Your task to perform on an android device: manage bookmarks in the chrome app Image 0: 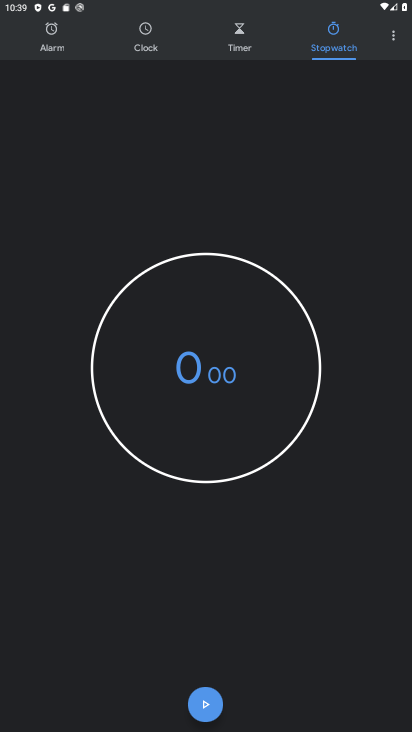
Step 0: press home button
Your task to perform on an android device: manage bookmarks in the chrome app Image 1: 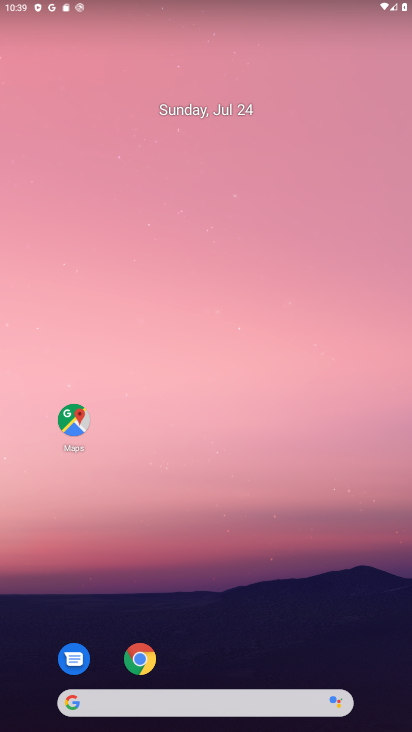
Step 1: click (153, 656)
Your task to perform on an android device: manage bookmarks in the chrome app Image 2: 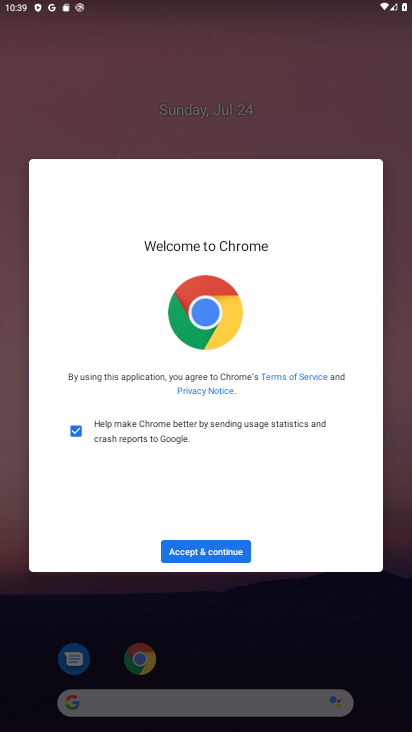
Step 2: click (223, 555)
Your task to perform on an android device: manage bookmarks in the chrome app Image 3: 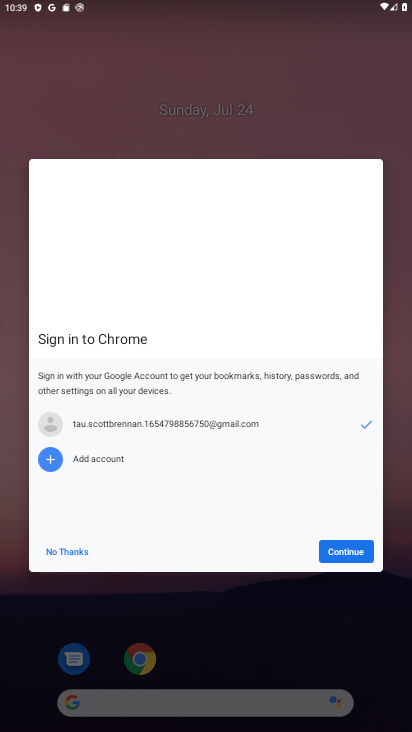
Step 3: click (346, 553)
Your task to perform on an android device: manage bookmarks in the chrome app Image 4: 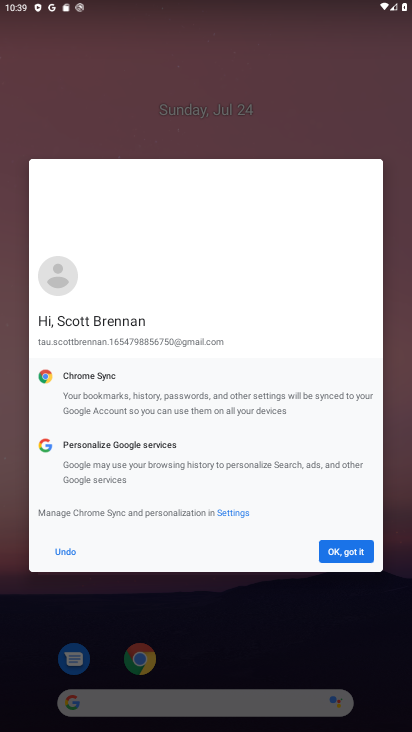
Step 4: click (337, 550)
Your task to perform on an android device: manage bookmarks in the chrome app Image 5: 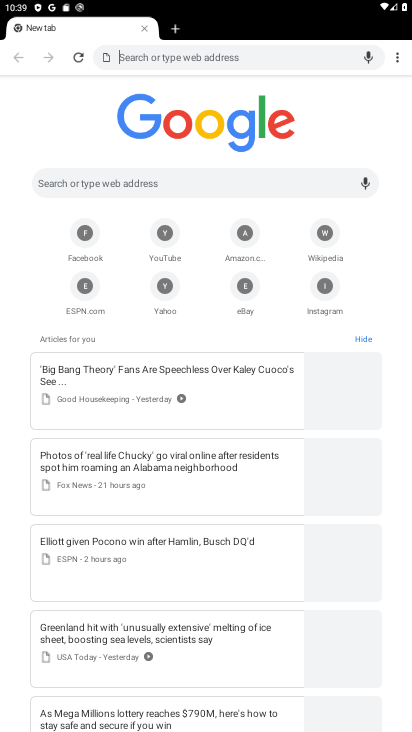
Step 5: click (398, 56)
Your task to perform on an android device: manage bookmarks in the chrome app Image 6: 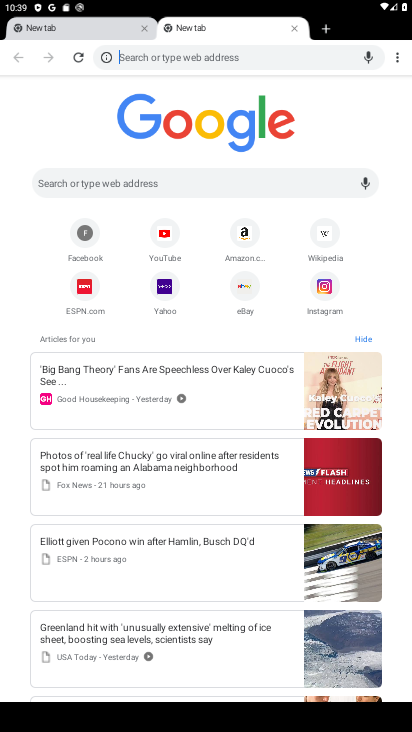
Step 6: click (409, 48)
Your task to perform on an android device: manage bookmarks in the chrome app Image 7: 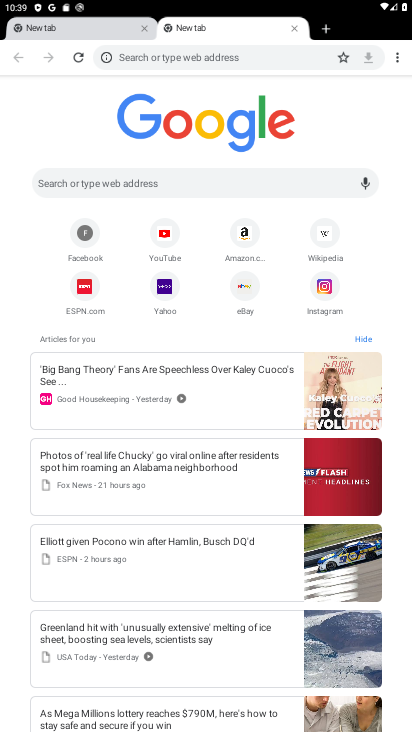
Step 7: click (402, 50)
Your task to perform on an android device: manage bookmarks in the chrome app Image 8: 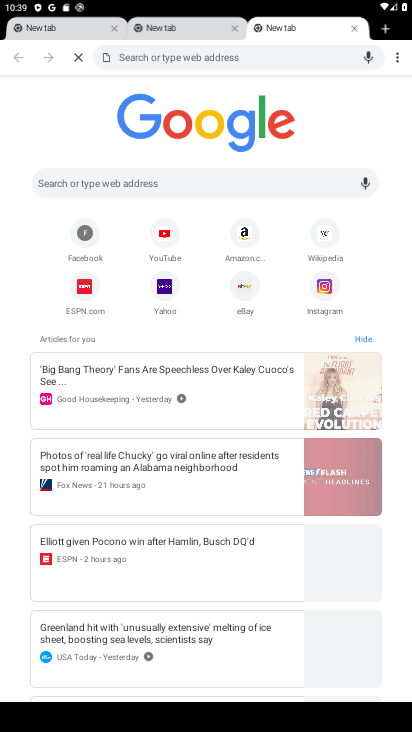
Step 8: click (402, 50)
Your task to perform on an android device: manage bookmarks in the chrome app Image 9: 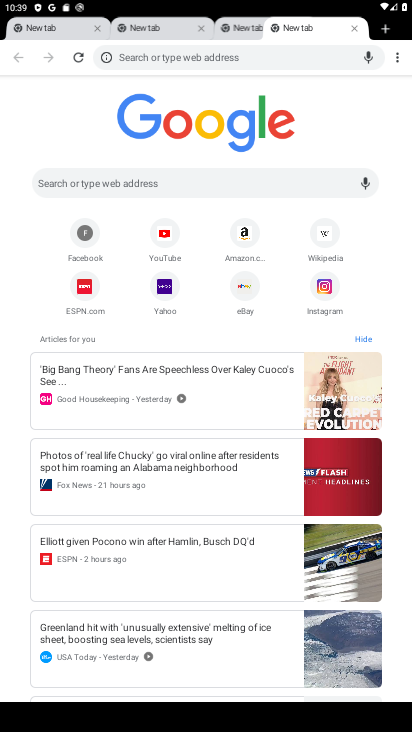
Step 9: click (402, 50)
Your task to perform on an android device: manage bookmarks in the chrome app Image 10: 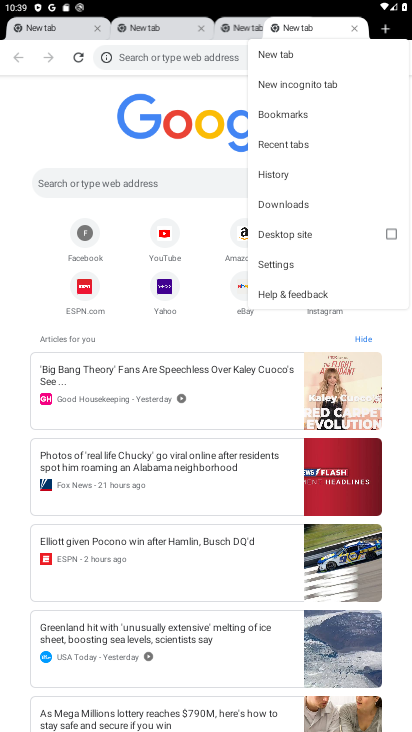
Step 10: click (276, 111)
Your task to perform on an android device: manage bookmarks in the chrome app Image 11: 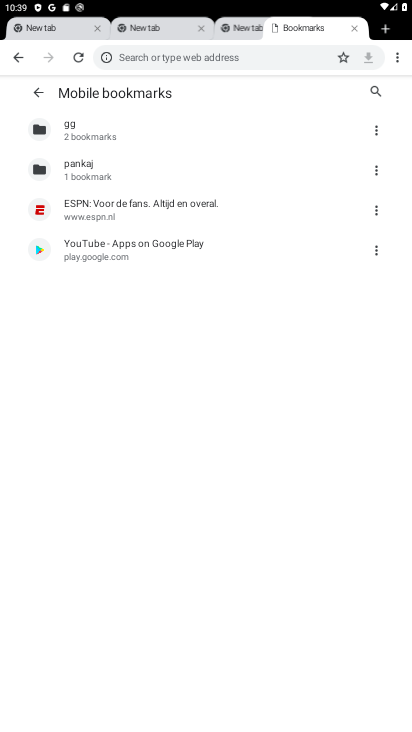
Step 11: click (104, 140)
Your task to perform on an android device: manage bookmarks in the chrome app Image 12: 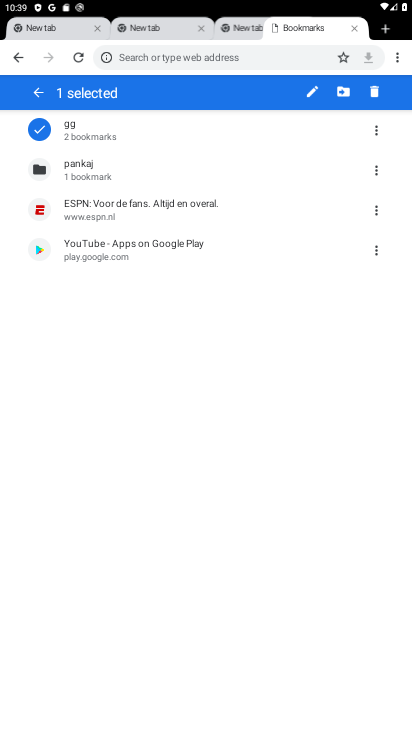
Step 12: click (62, 132)
Your task to perform on an android device: manage bookmarks in the chrome app Image 13: 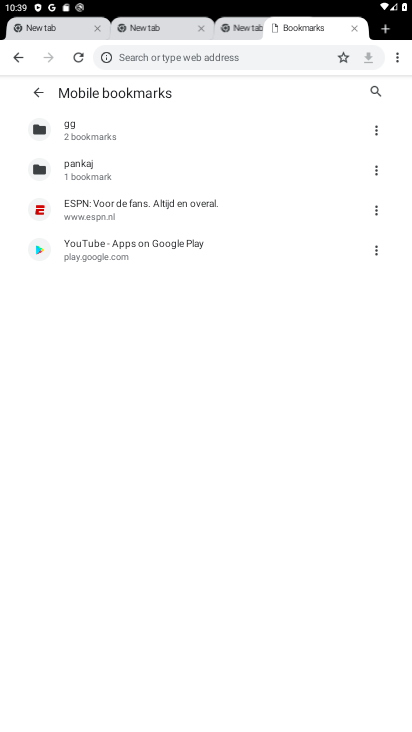
Step 13: click (97, 211)
Your task to perform on an android device: manage bookmarks in the chrome app Image 14: 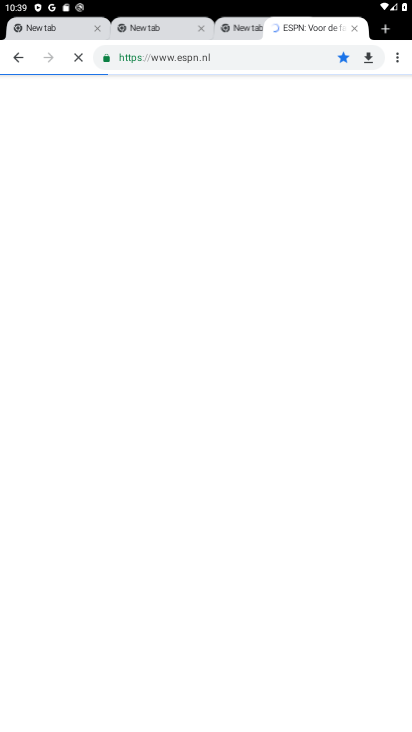
Step 14: click (101, 212)
Your task to perform on an android device: manage bookmarks in the chrome app Image 15: 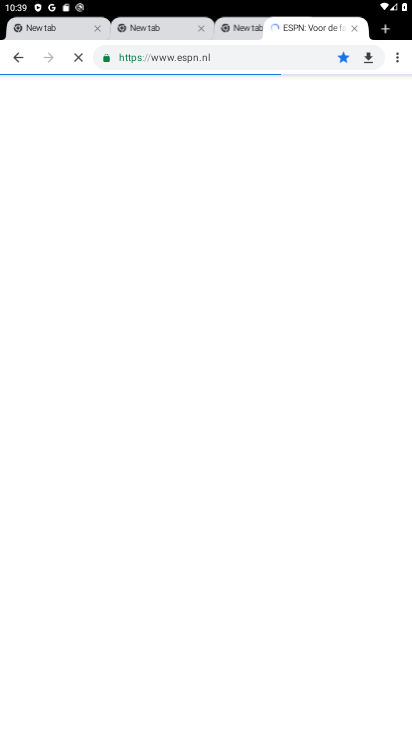
Step 15: click (13, 45)
Your task to perform on an android device: manage bookmarks in the chrome app Image 16: 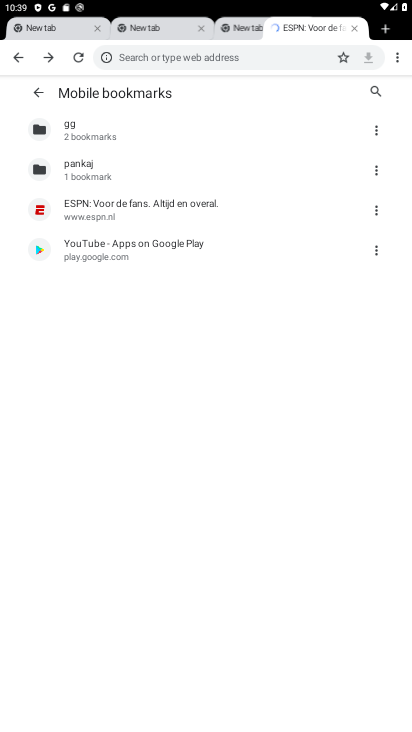
Step 16: click (130, 210)
Your task to perform on an android device: manage bookmarks in the chrome app Image 17: 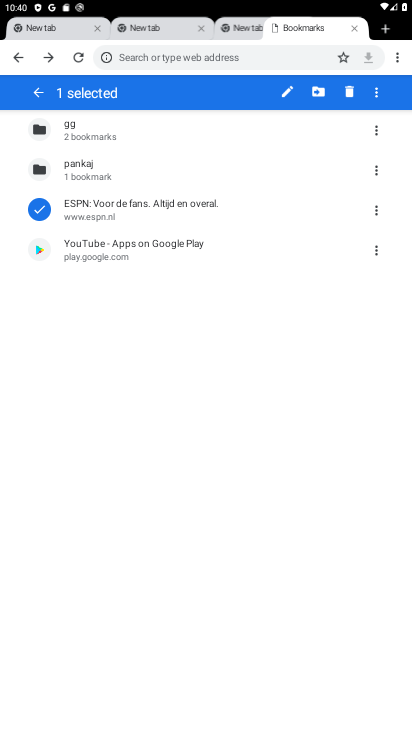
Step 17: click (309, 93)
Your task to perform on an android device: manage bookmarks in the chrome app Image 18: 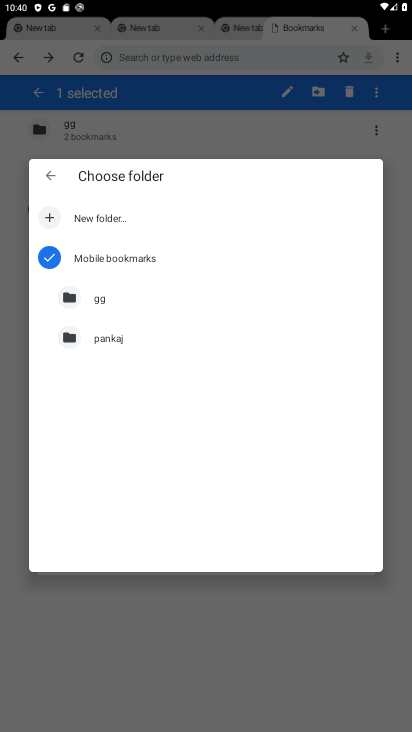
Step 18: click (95, 293)
Your task to perform on an android device: manage bookmarks in the chrome app Image 19: 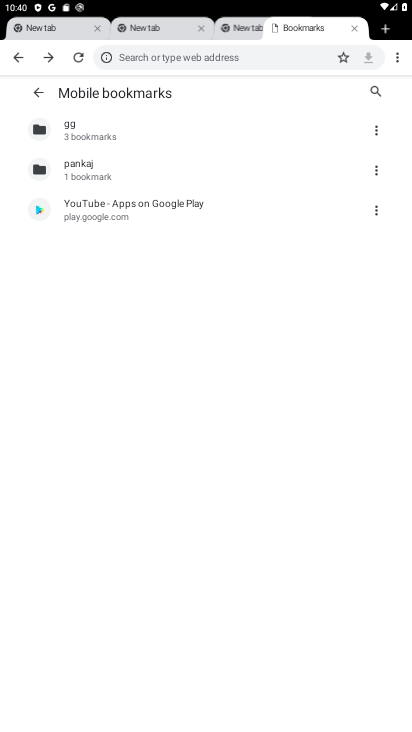
Step 19: task complete